Your task to perform on an android device: turn off sleep mode Image 0: 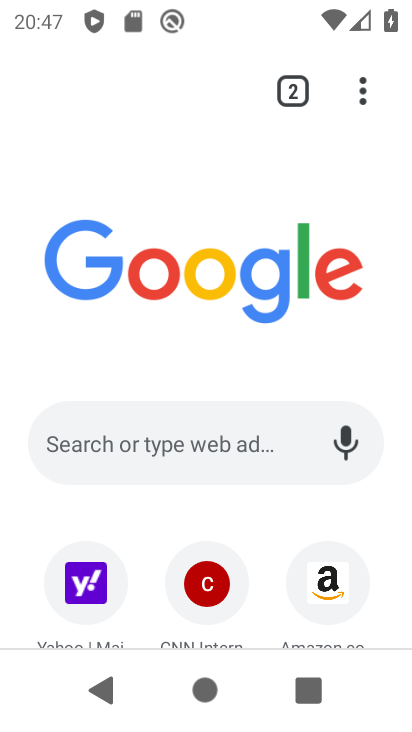
Step 0: press home button
Your task to perform on an android device: turn off sleep mode Image 1: 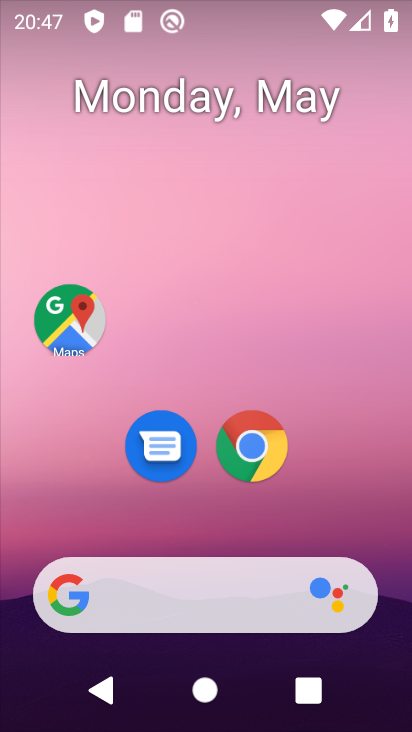
Step 1: drag from (334, 461) to (355, 131)
Your task to perform on an android device: turn off sleep mode Image 2: 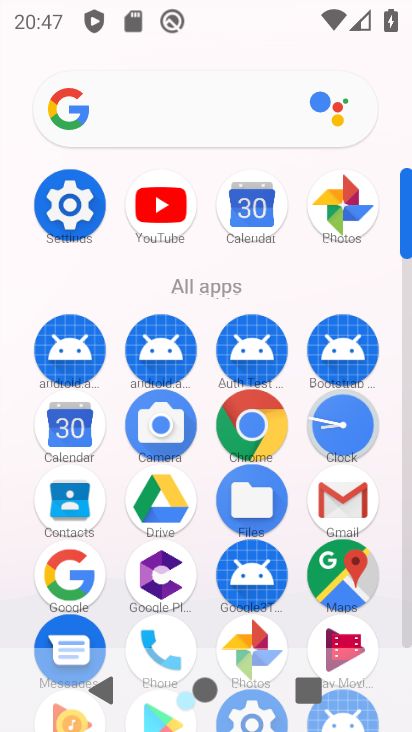
Step 2: click (74, 198)
Your task to perform on an android device: turn off sleep mode Image 3: 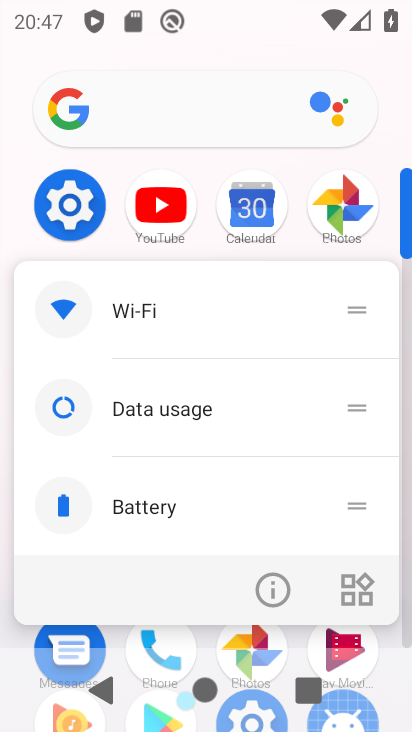
Step 3: click (78, 244)
Your task to perform on an android device: turn off sleep mode Image 4: 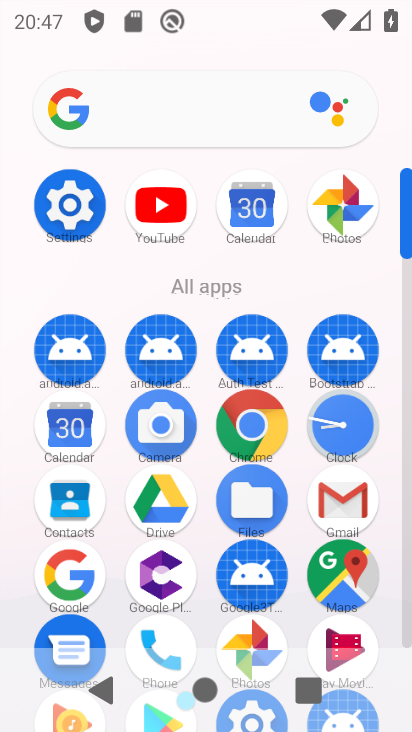
Step 4: click (83, 194)
Your task to perform on an android device: turn off sleep mode Image 5: 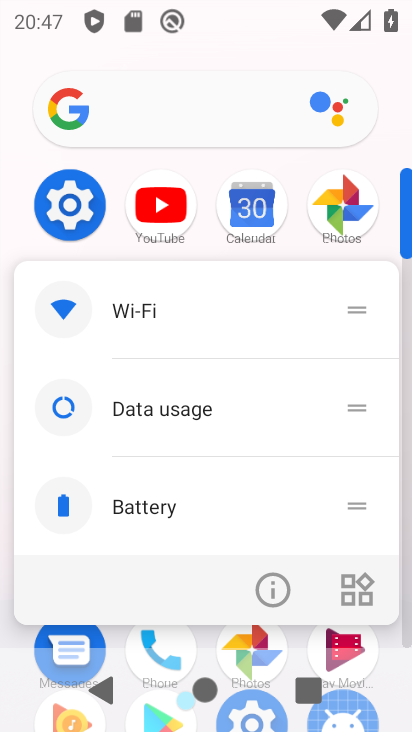
Step 5: click (76, 196)
Your task to perform on an android device: turn off sleep mode Image 6: 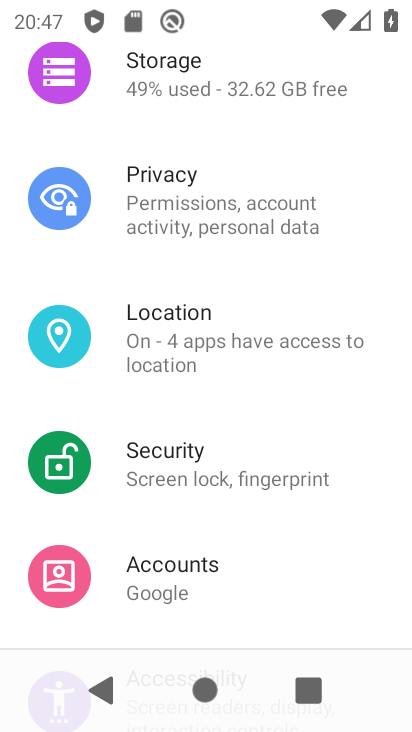
Step 6: drag from (260, 109) to (211, 481)
Your task to perform on an android device: turn off sleep mode Image 7: 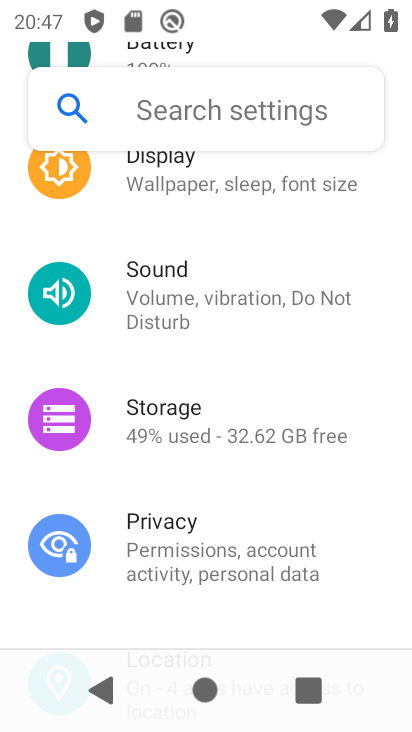
Step 7: click (238, 193)
Your task to perform on an android device: turn off sleep mode Image 8: 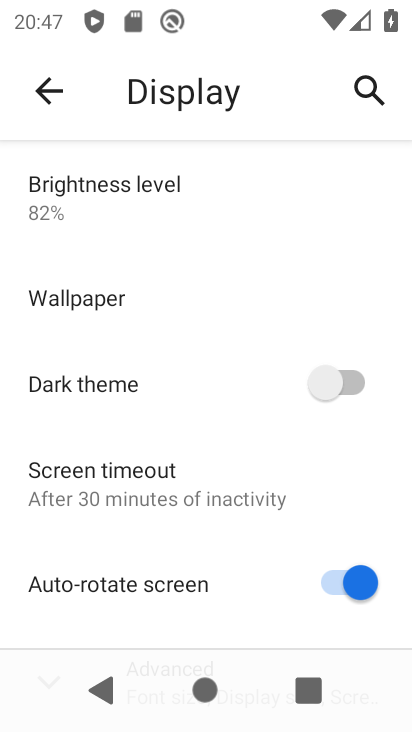
Step 8: click (211, 490)
Your task to perform on an android device: turn off sleep mode Image 9: 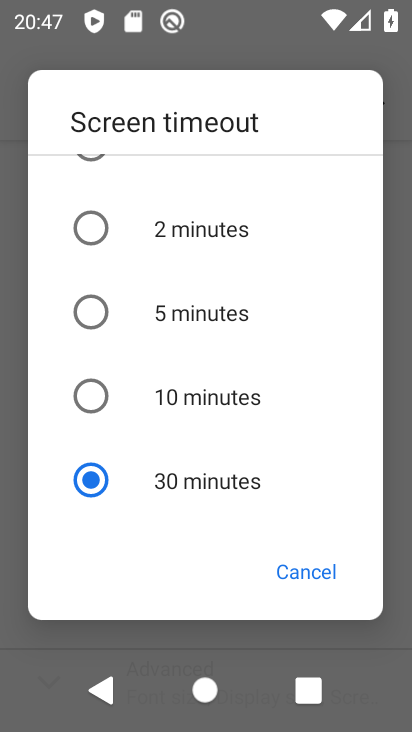
Step 9: task complete